Your task to perform on an android device: create a new album in the google photos Image 0: 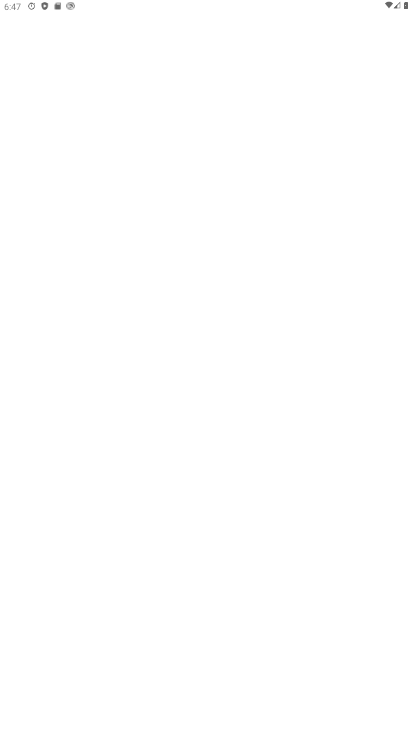
Step 0: press home button
Your task to perform on an android device: create a new album in the google photos Image 1: 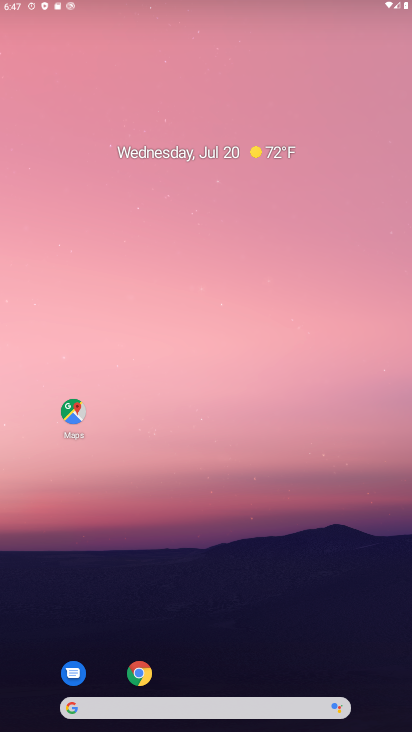
Step 1: drag from (383, 658) to (173, 10)
Your task to perform on an android device: create a new album in the google photos Image 2: 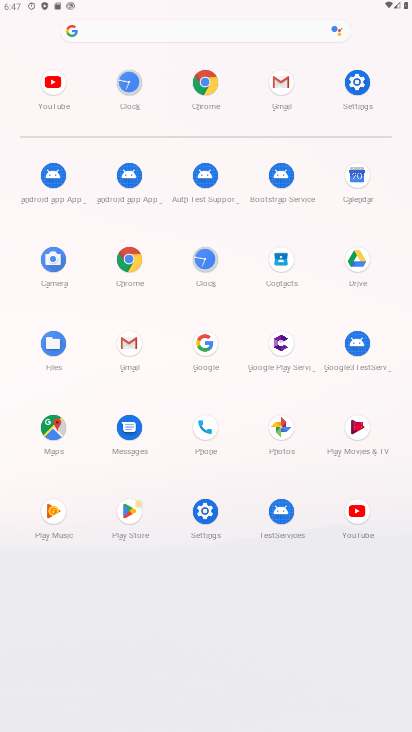
Step 2: click (280, 436)
Your task to perform on an android device: create a new album in the google photos Image 3: 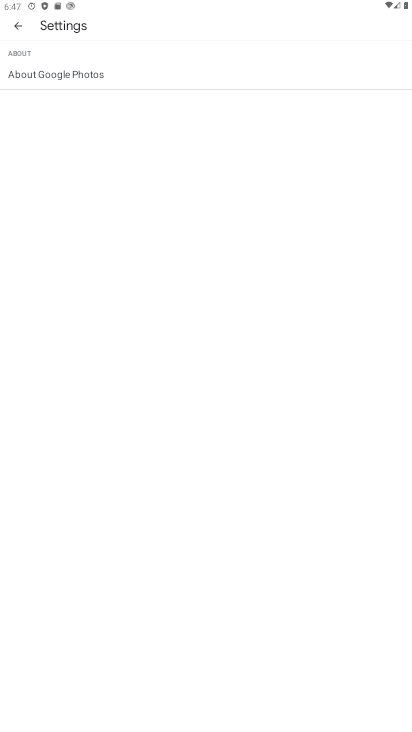
Step 3: task complete